Your task to perform on an android device: Open Google Maps and go to "Timeline" Image 0: 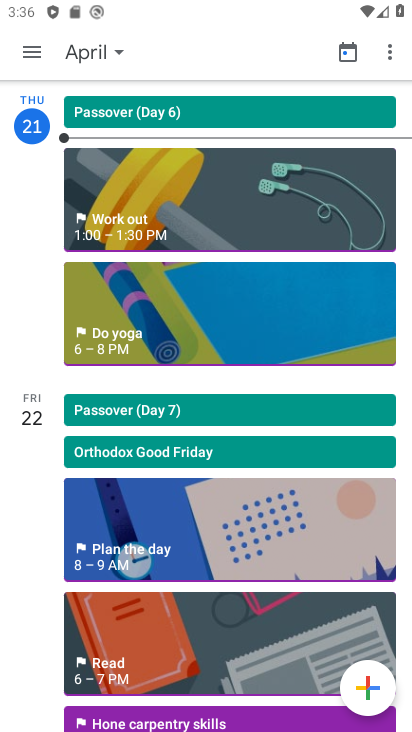
Step 0: press home button
Your task to perform on an android device: Open Google Maps and go to "Timeline" Image 1: 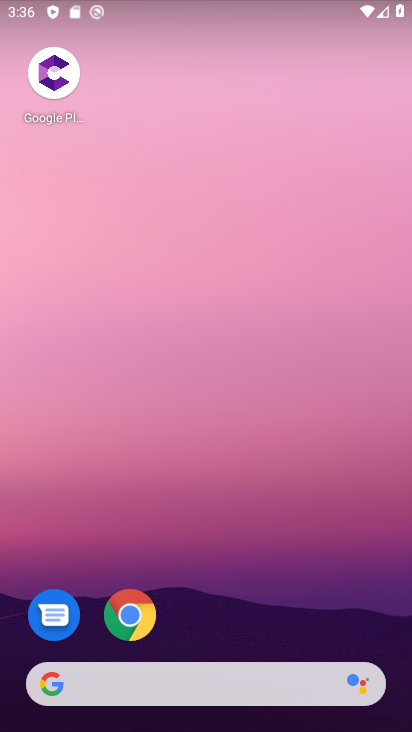
Step 1: drag from (275, 536) to (276, 17)
Your task to perform on an android device: Open Google Maps and go to "Timeline" Image 2: 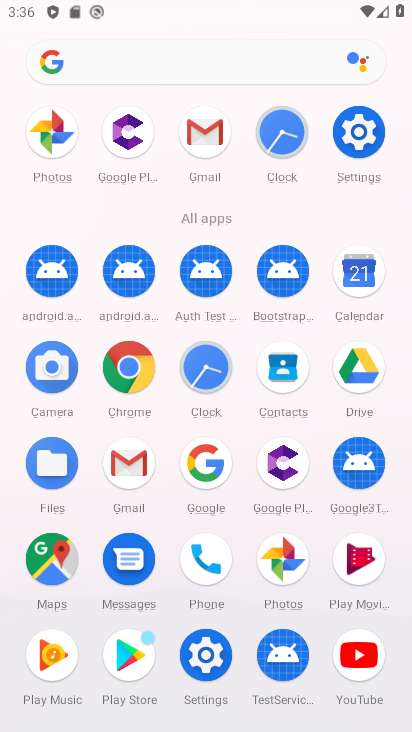
Step 2: click (37, 552)
Your task to perform on an android device: Open Google Maps and go to "Timeline" Image 3: 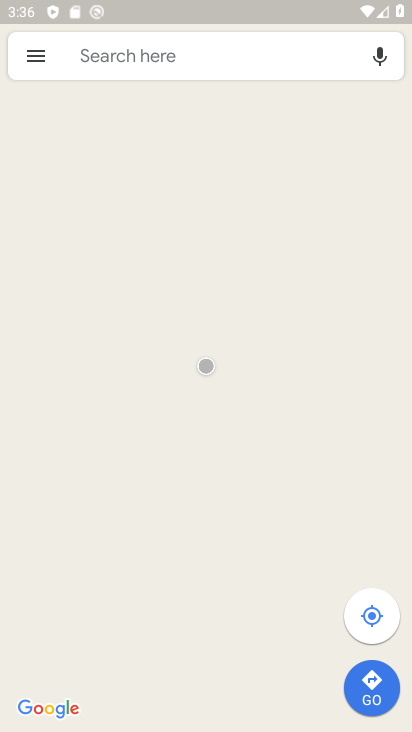
Step 3: click (38, 44)
Your task to perform on an android device: Open Google Maps and go to "Timeline" Image 4: 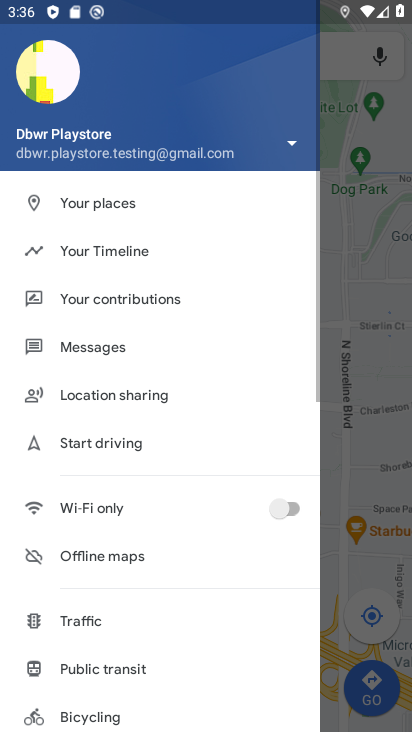
Step 4: click (143, 241)
Your task to perform on an android device: Open Google Maps and go to "Timeline" Image 5: 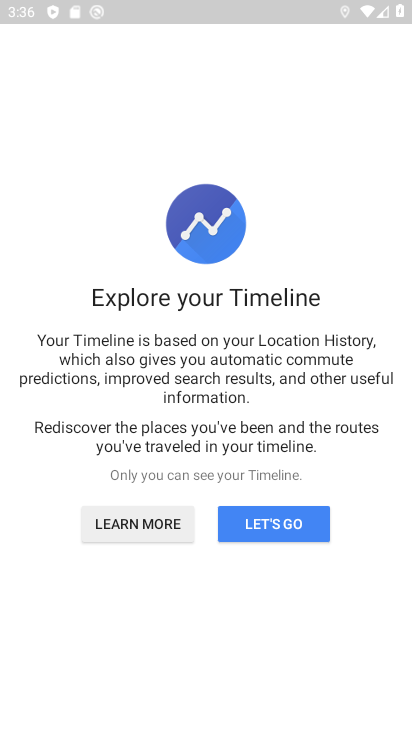
Step 5: click (291, 520)
Your task to perform on an android device: Open Google Maps and go to "Timeline" Image 6: 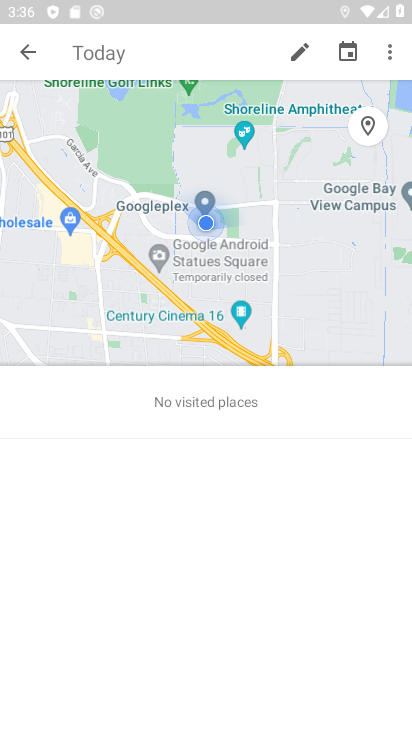
Step 6: task complete